Your task to perform on an android device: Open privacy settings Image 0: 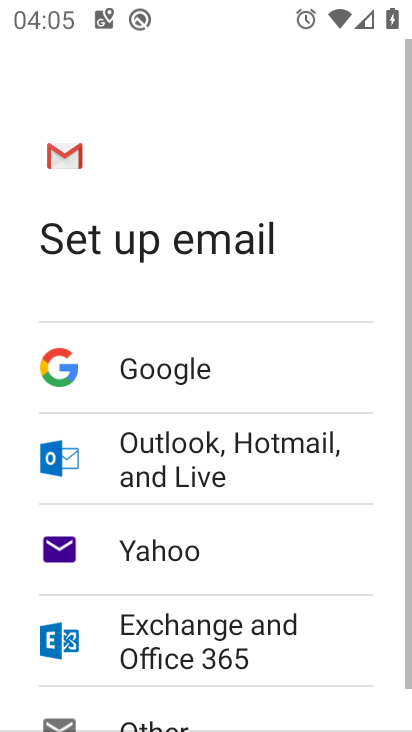
Step 0: press back button
Your task to perform on an android device: Open privacy settings Image 1: 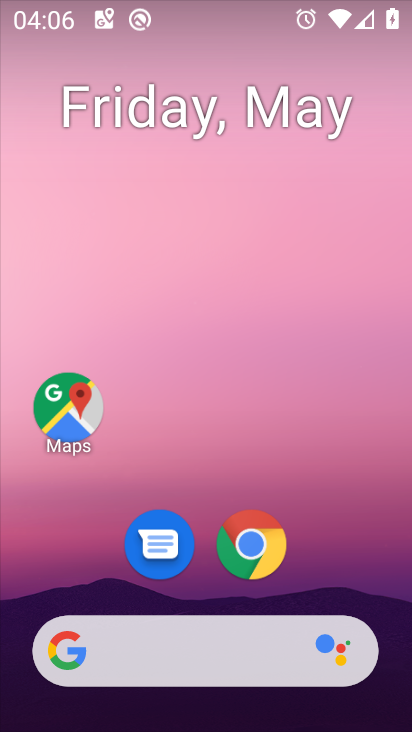
Step 1: drag from (203, 729) to (378, 12)
Your task to perform on an android device: Open privacy settings Image 2: 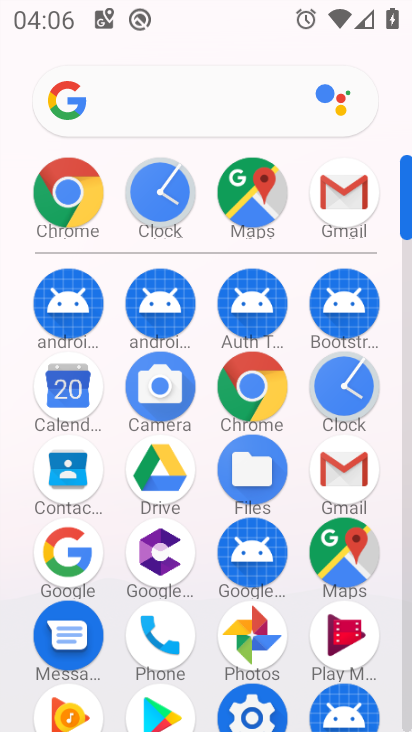
Step 2: click (260, 716)
Your task to perform on an android device: Open privacy settings Image 3: 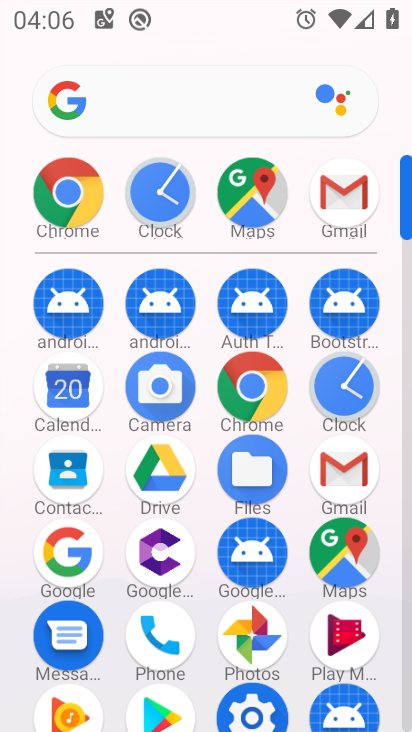
Step 3: click (254, 708)
Your task to perform on an android device: Open privacy settings Image 4: 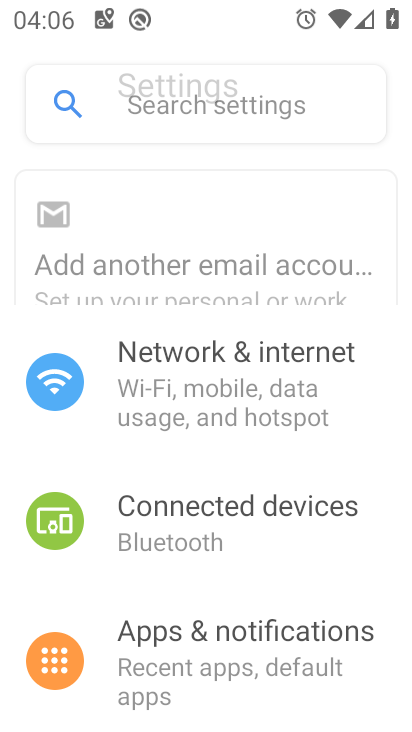
Step 4: click (254, 708)
Your task to perform on an android device: Open privacy settings Image 5: 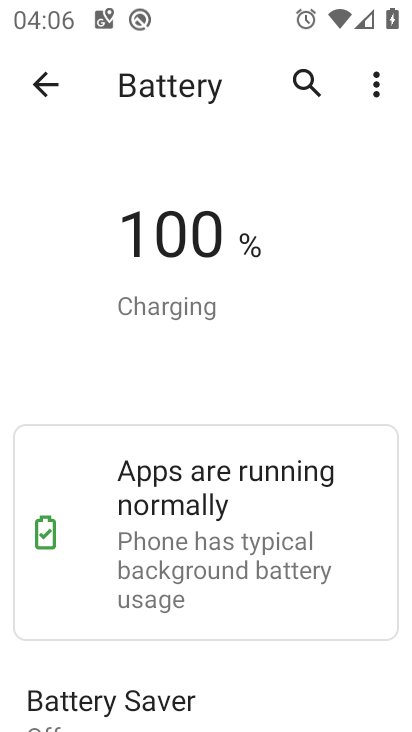
Step 5: click (211, 230)
Your task to perform on an android device: Open privacy settings Image 6: 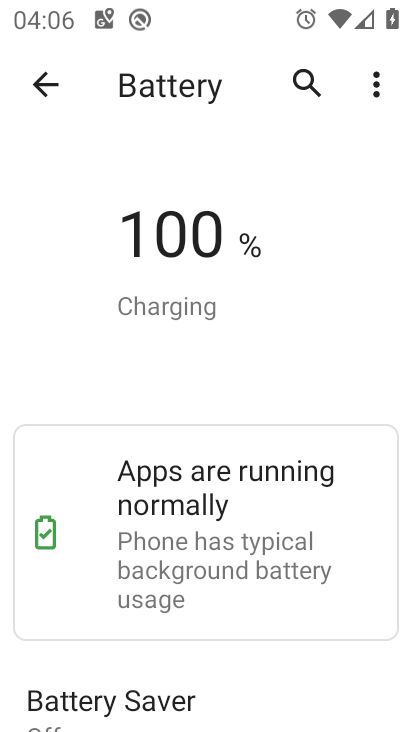
Step 6: drag from (206, 421) to (73, 19)
Your task to perform on an android device: Open privacy settings Image 7: 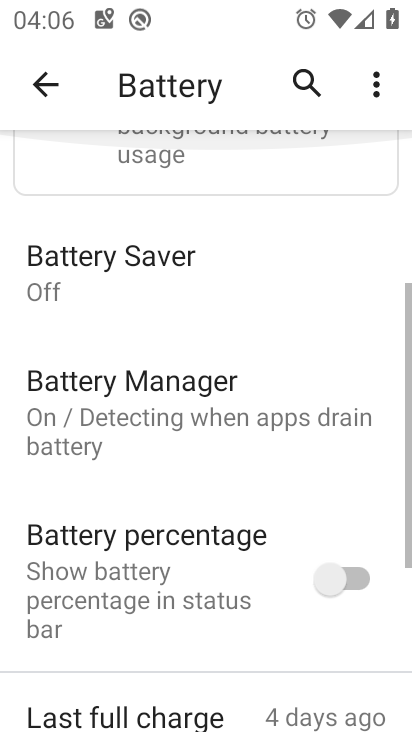
Step 7: click (38, 78)
Your task to perform on an android device: Open privacy settings Image 8: 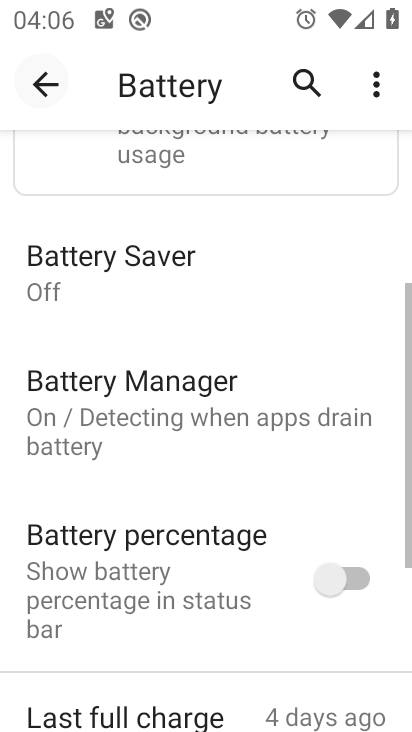
Step 8: click (38, 78)
Your task to perform on an android device: Open privacy settings Image 9: 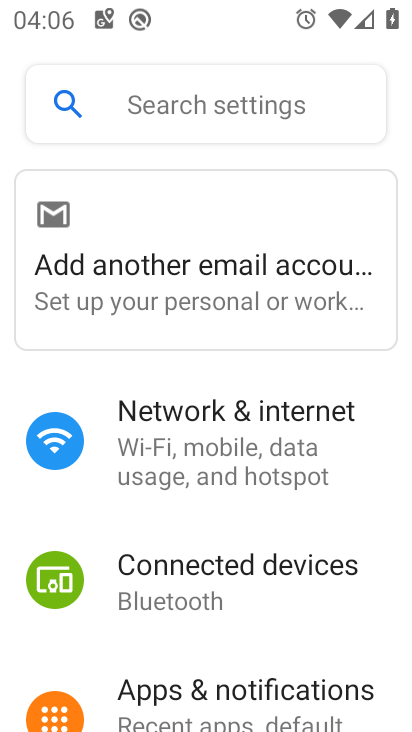
Step 9: drag from (219, 468) to (181, 249)
Your task to perform on an android device: Open privacy settings Image 10: 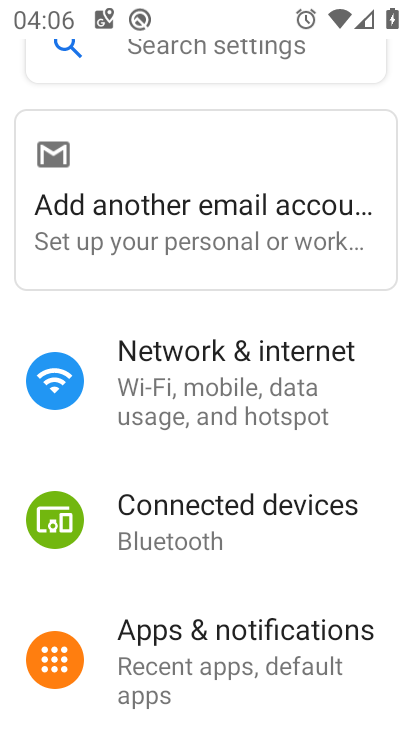
Step 10: drag from (276, 563) to (255, 169)
Your task to perform on an android device: Open privacy settings Image 11: 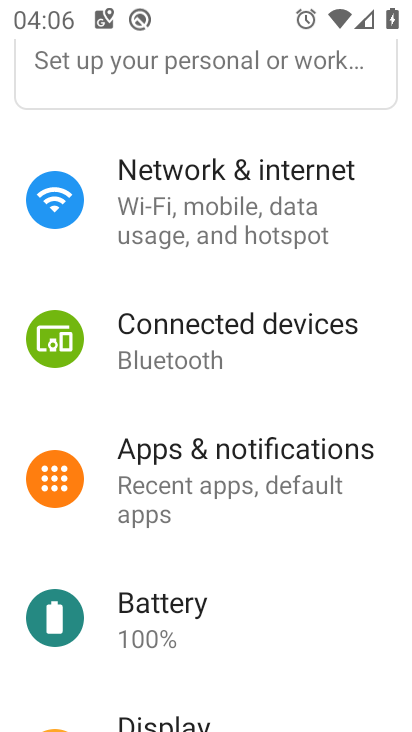
Step 11: drag from (280, 552) to (182, 77)
Your task to perform on an android device: Open privacy settings Image 12: 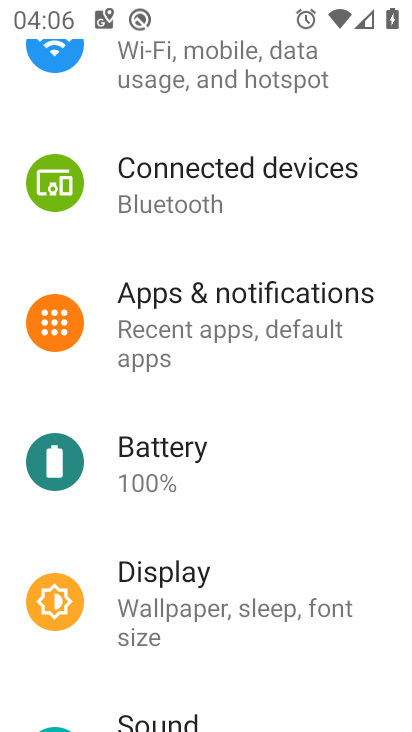
Step 12: drag from (218, 524) to (179, 76)
Your task to perform on an android device: Open privacy settings Image 13: 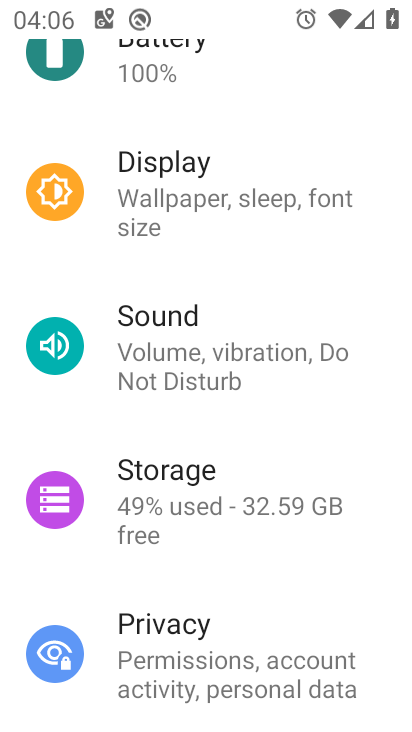
Step 13: drag from (200, 438) to (173, 95)
Your task to perform on an android device: Open privacy settings Image 14: 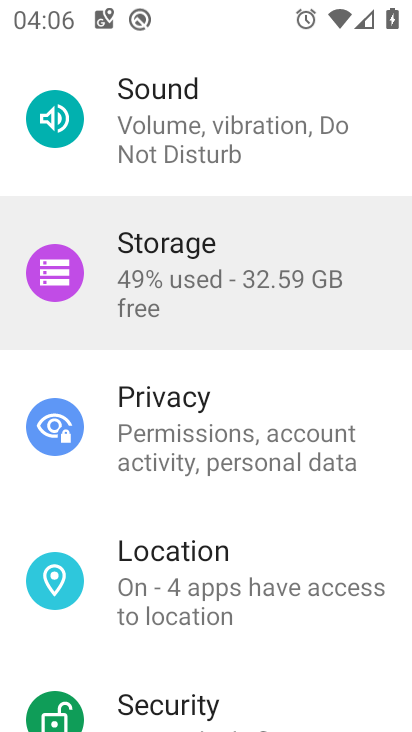
Step 14: drag from (197, 516) to (162, 156)
Your task to perform on an android device: Open privacy settings Image 15: 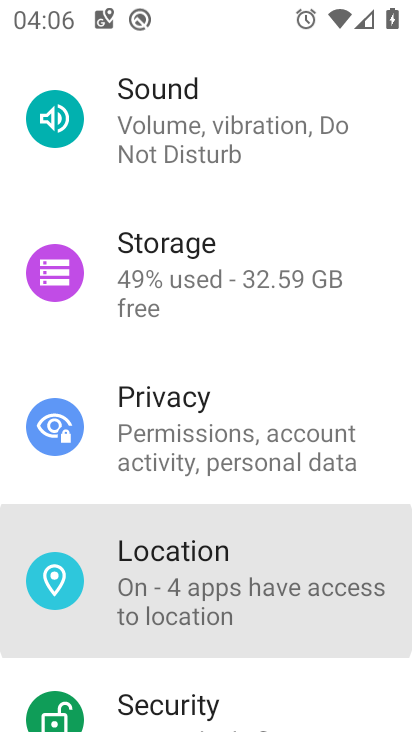
Step 15: drag from (165, 462) to (156, 224)
Your task to perform on an android device: Open privacy settings Image 16: 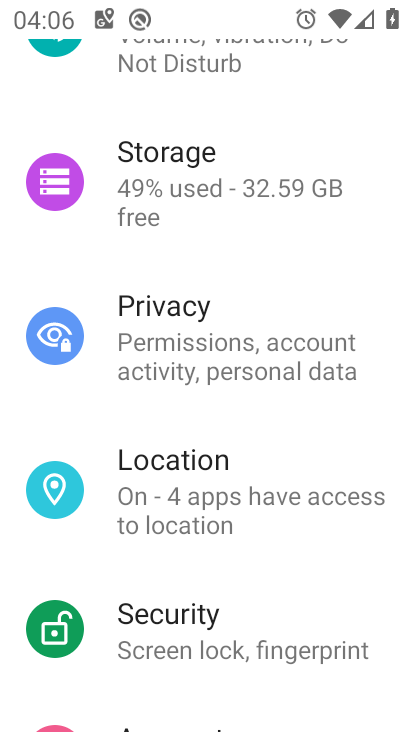
Step 16: drag from (180, 524) to (155, 139)
Your task to perform on an android device: Open privacy settings Image 17: 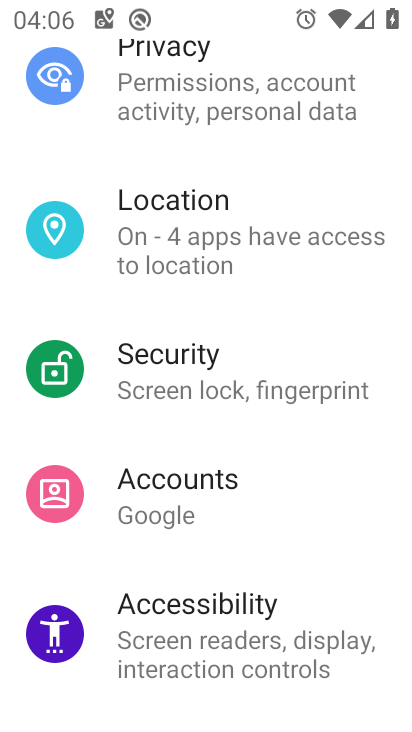
Step 17: drag from (274, 520) to (198, 73)
Your task to perform on an android device: Open privacy settings Image 18: 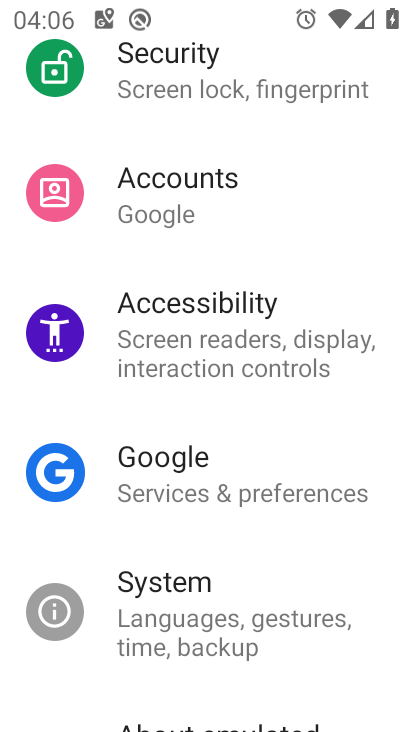
Step 18: drag from (295, 533) to (196, 52)
Your task to perform on an android device: Open privacy settings Image 19: 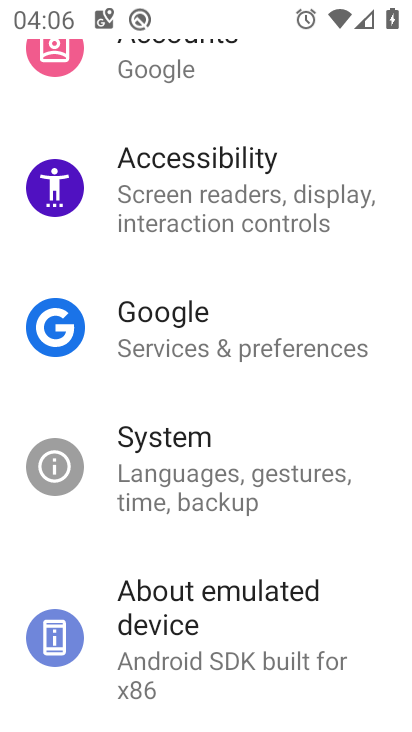
Step 19: drag from (218, 382) to (174, 74)
Your task to perform on an android device: Open privacy settings Image 20: 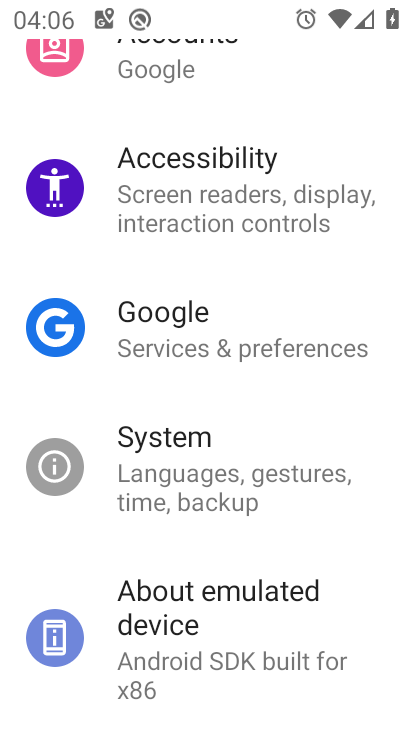
Step 20: drag from (217, 331) to (192, 124)
Your task to perform on an android device: Open privacy settings Image 21: 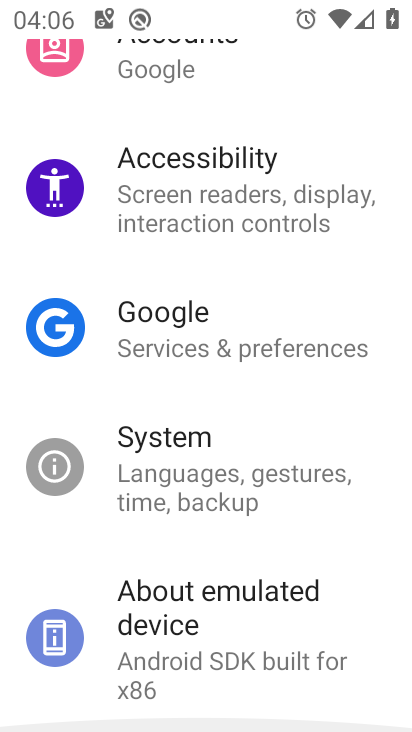
Step 21: drag from (231, 454) to (106, 16)
Your task to perform on an android device: Open privacy settings Image 22: 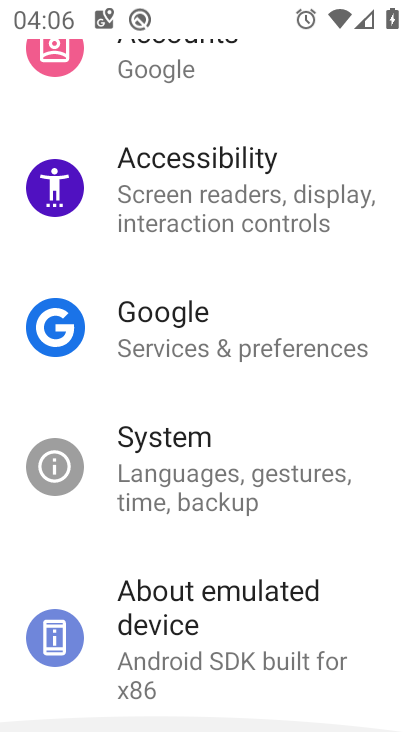
Step 22: drag from (196, 466) to (173, 240)
Your task to perform on an android device: Open privacy settings Image 23: 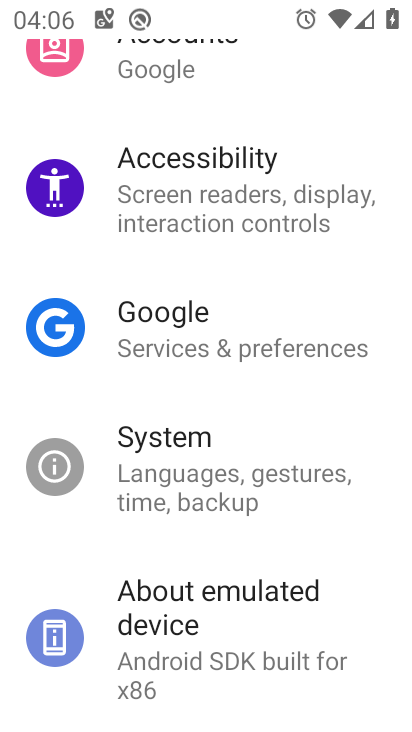
Step 23: drag from (193, 451) to (143, 97)
Your task to perform on an android device: Open privacy settings Image 24: 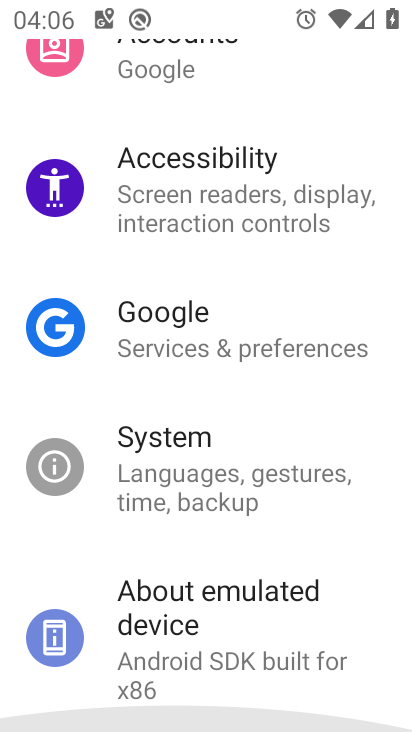
Step 24: drag from (198, 450) to (142, 144)
Your task to perform on an android device: Open privacy settings Image 25: 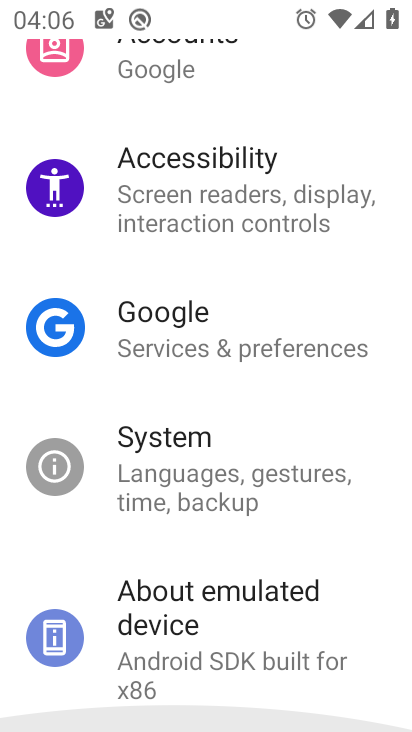
Step 25: drag from (243, 503) to (194, 240)
Your task to perform on an android device: Open privacy settings Image 26: 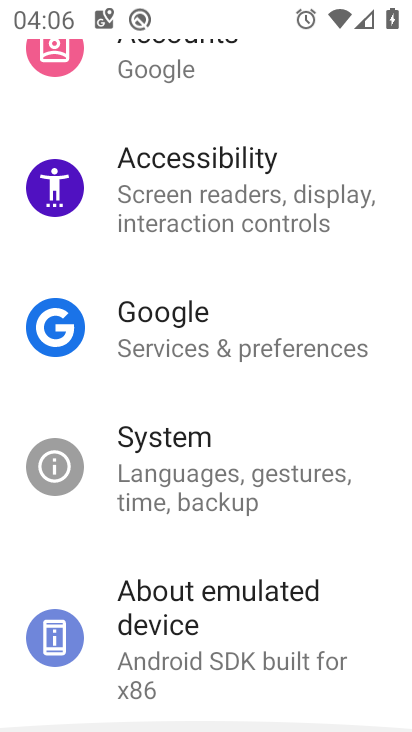
Step 26: drag from (227, 469) to (173, 149)
Your task to perform on an android device: Open privacy settings Image 27: 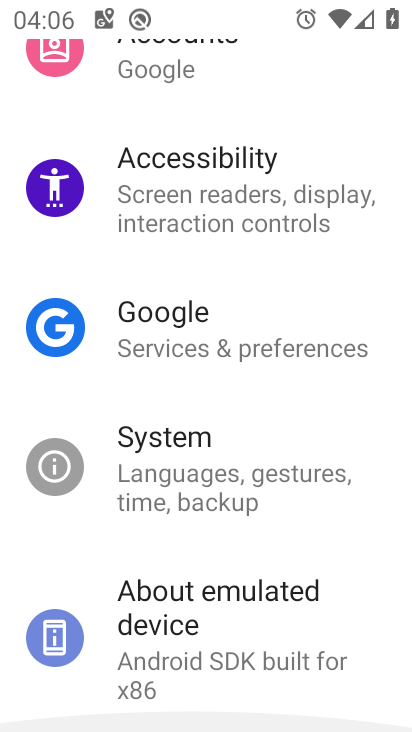
Step 27: drag from (267, 516) to (213, 215)
Your task to perform on an android device: Open privacy settings Image 28: 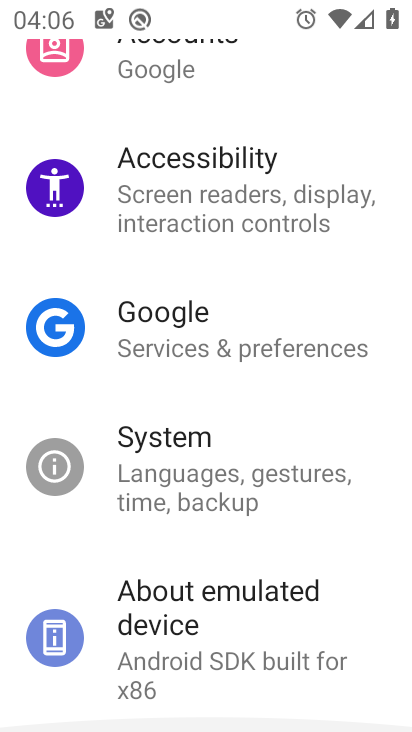
Step 28: drag from (243, 484) to (204, 196)
Your task to perform on an android device: Open privacy settings Image 29: 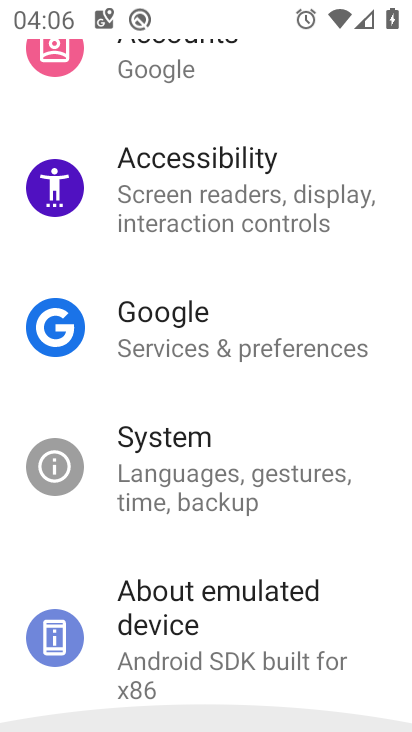
Step 29: drag from (213, 410) to (164, 161)
Your task to perform on an android device: Open privacy settings Image 30: 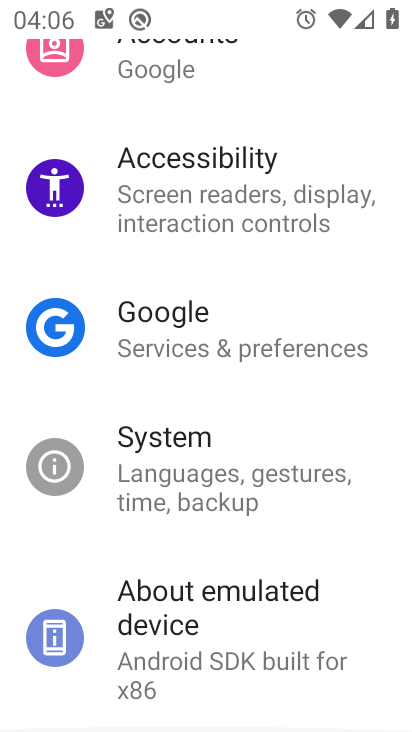
Step 30: drag from (189, 361) to (159, 196)
Your task to perform on an android device: Open privacy settings Image 31: 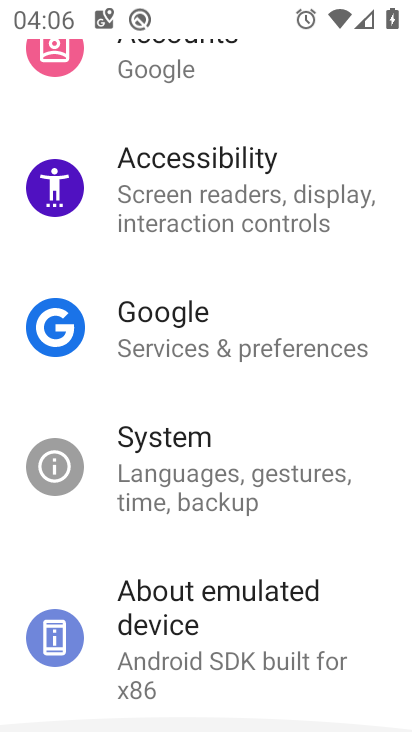
Step 31: drag from (205, 510) to (157, 247)
Your task to perform on an android device: Open privacy settings Image 32: 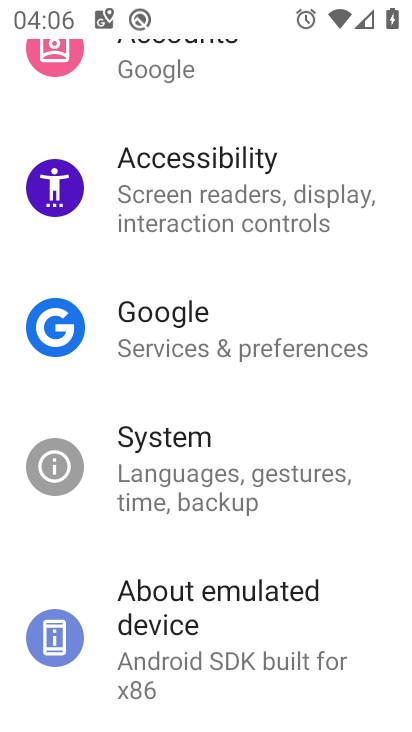
Step 32: drag from (231, 589) to (182, 178)
Your task to perform on an android device: Open privacy settings Image 33: 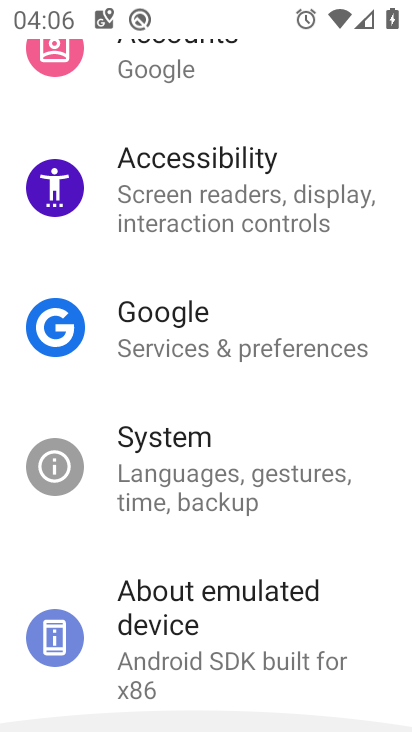
Step 33: drag from (227, 474) to (203, 161)
Your task to perform on an android device: Open privacy settings Image 34: 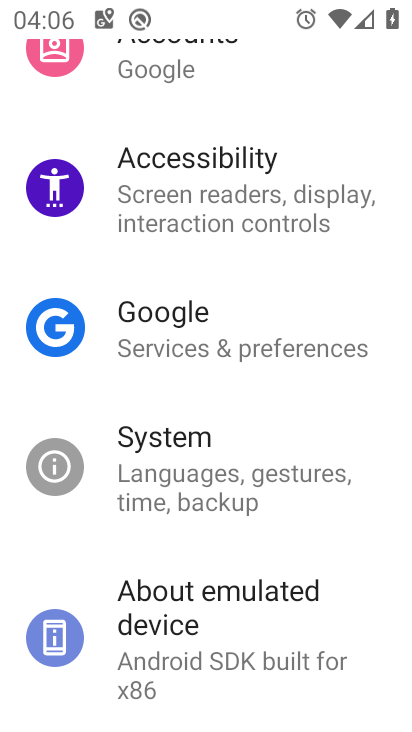
Step 34: drag from (197, 402) to (177, 116)
Your task to perform on an android device: Open privacy settings Image 35: 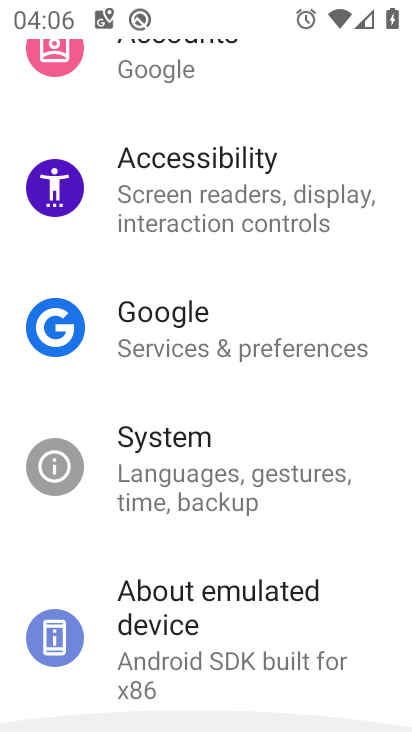
Step 35: drag from (215, 483) to (202, 35)
Your task to perform on an android device: Open privacy settings Image 36: 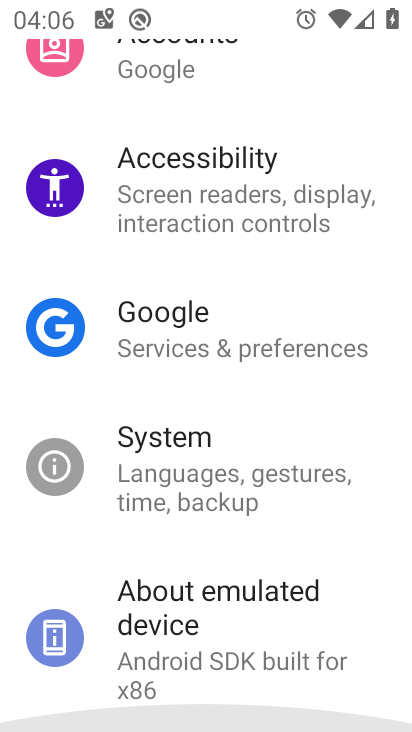
Step 36: drag from (239, 559) to (188, 187)
Your task to perform on an android device: Open privacy settings Image 37: 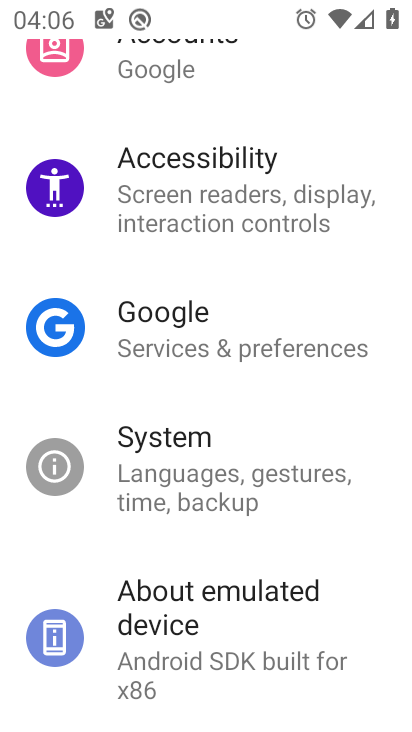
Step 37: drag from (125, 223) to (231, 570)
Your task to perform on an android device: Open privacy settings Image 38: 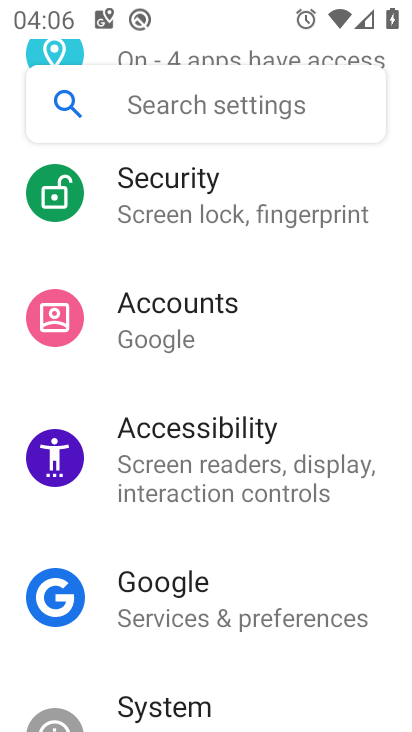
Step 38: drag from (231, 309) to (255, 508)
Your task to perform on an android device: Open privacy settings Image 39: 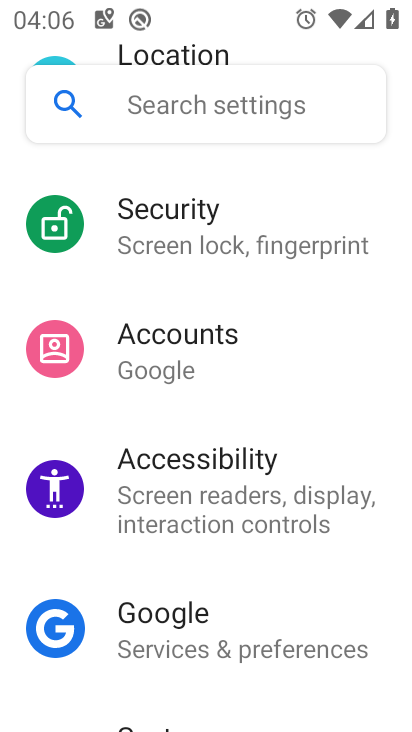
Step 39: drag from (208, 272) to (222, 500)
Your task to perform on an android device: Open privacy settings Image 40: 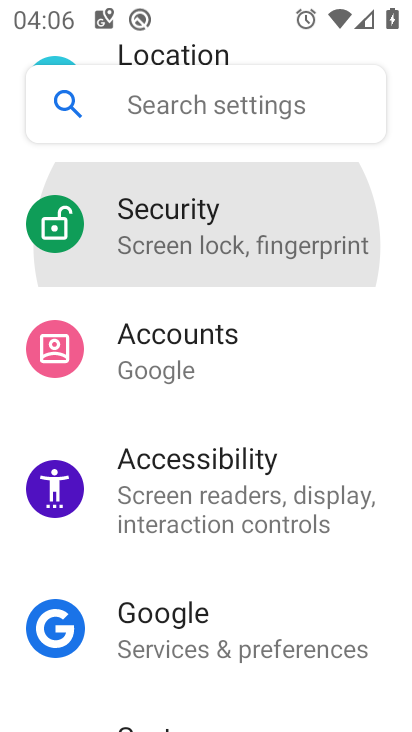
Step 40: drag from (187, 185) to (221, 440)
Your task to perform on an android device: Open privacy settings Image 41: 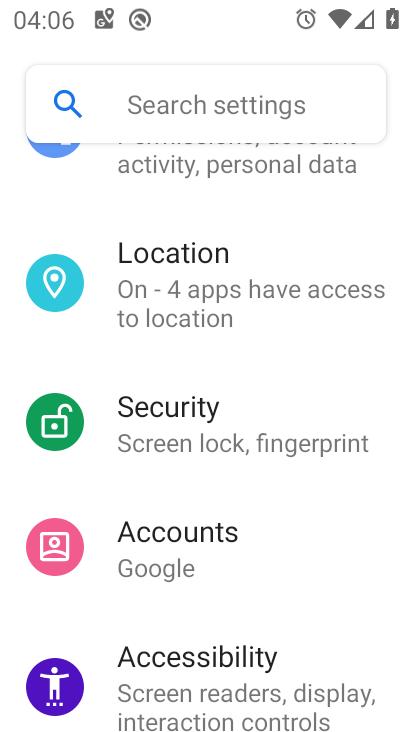
Step 41: drag from (183, 230) to (207, 518)
Your task to perform on an android device: Open privacy settings Image 42: 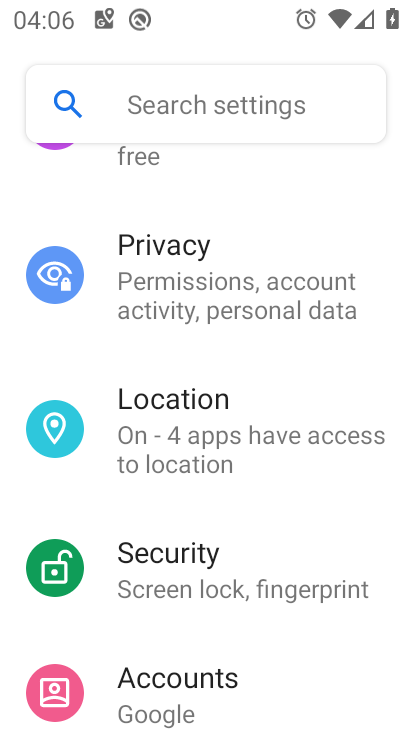
Step 42: drag from (154, 227) to (178, 548)
Your task to perform on an android device: Open privacy settings Image 43: 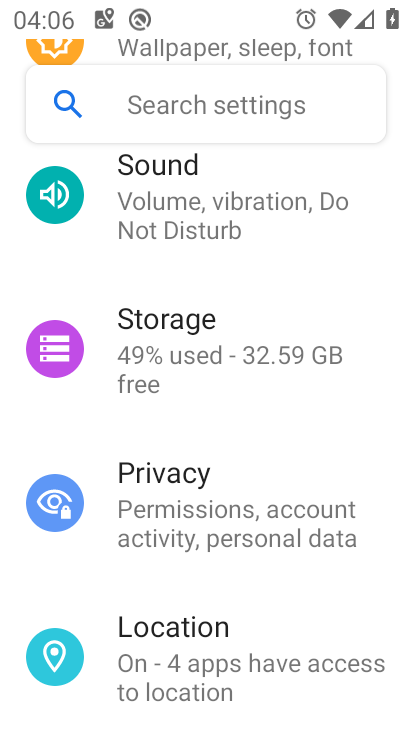
Step 43: drag from (132, 235) to (178, 550)
Your task to perform on an android device: Open privacy settings Image 44: 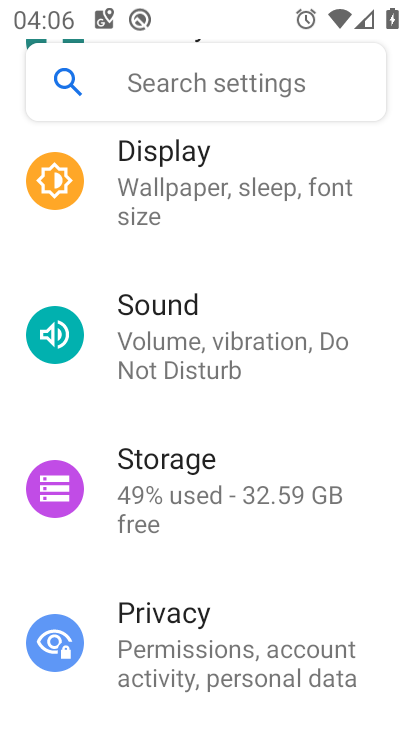
Step 44: click (146, 611)
Your task to perform on an android device: Open privacy settings Image 45: 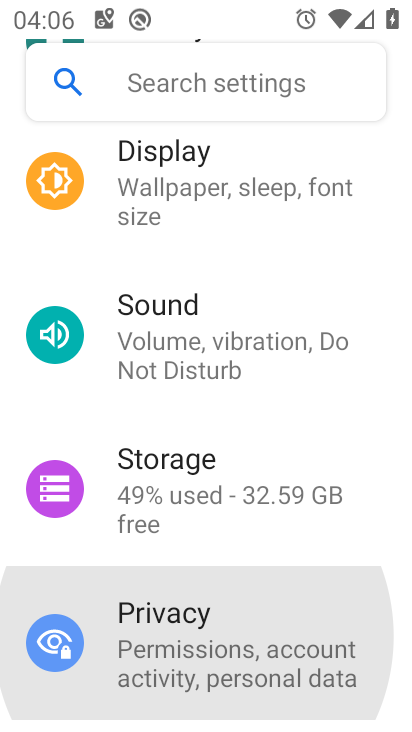
Step 45: click (146, 611)
Your task to perform on an android device: Open privacy settings Image 46: 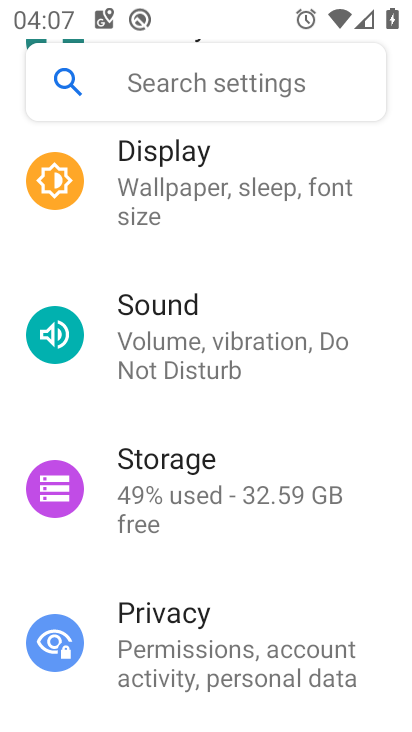
Step 46: click (147, 640)
Your task to perform on an android device: Open privacy settings Image 47: 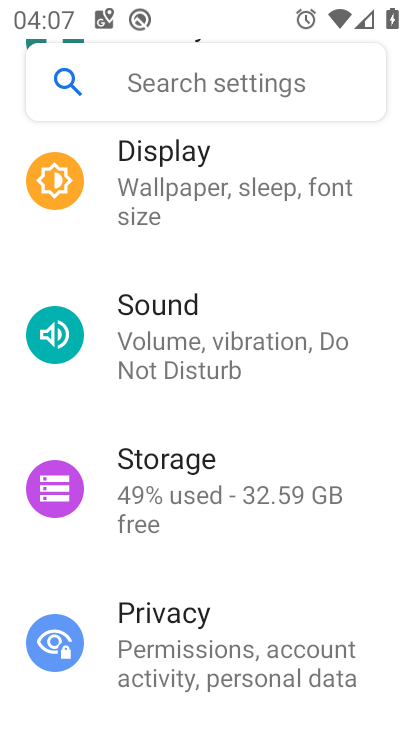
Step 47: click (145, 650)
Your task to perform on an android device: Open privacy settings Image 48: 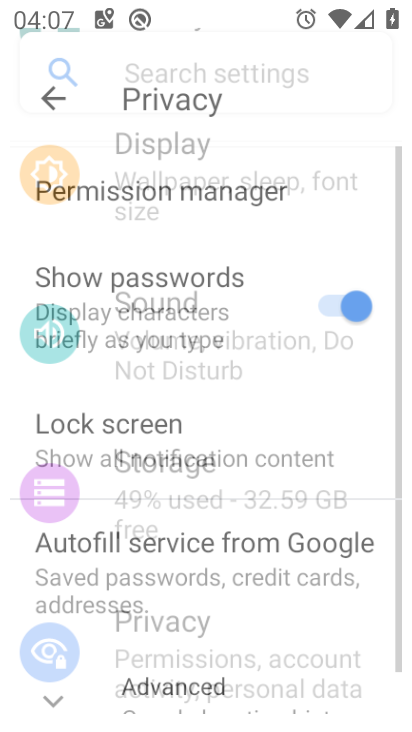
Step 48: click (159, 684)
Your task to perform on an android device: Open privacy settings Image 49: 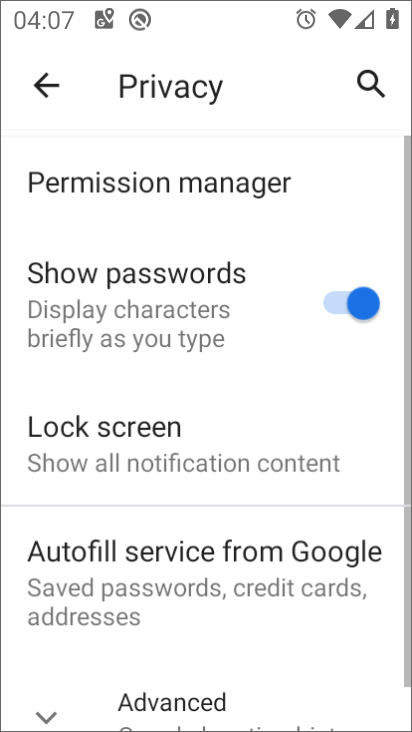
Step 49: task complete